Your task to perform on an android device: Open Chrome and go to settings Image 0: 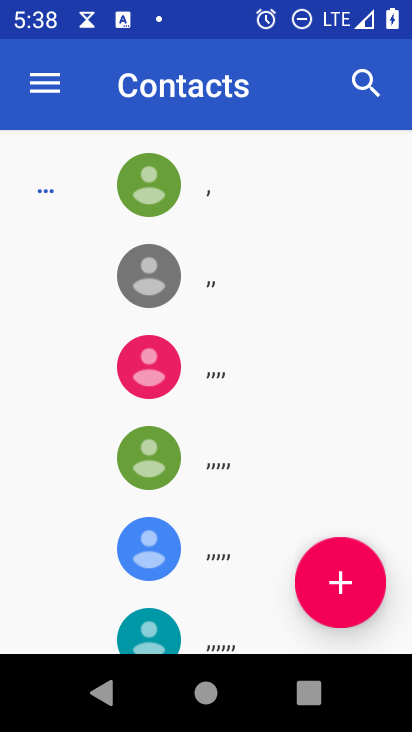
Step 0: press home button
Your task to perform on an android device: Open Chrome and go to settings Image 1: 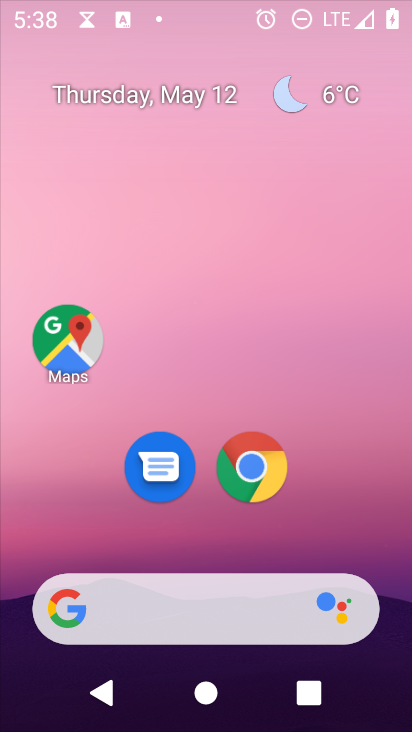
Step 1: drag from (337, 621) to (343, 0)
Your task to perform on an android device: Open Chrome and go to settings Image 2: 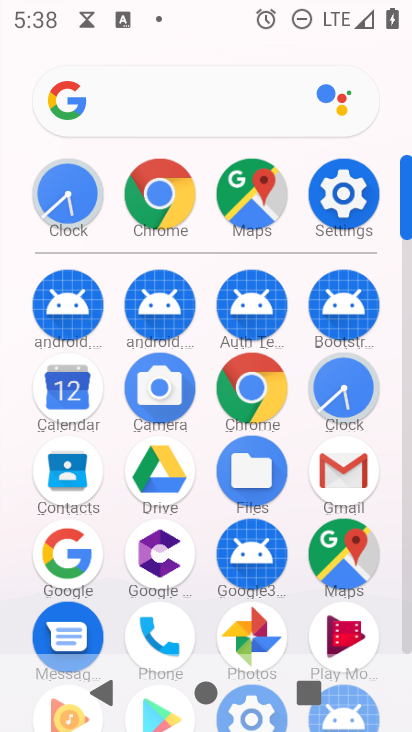
Step 2: click (255, 393)
Your task to perform on an android device: Open Chrome and go to settings Image 3: 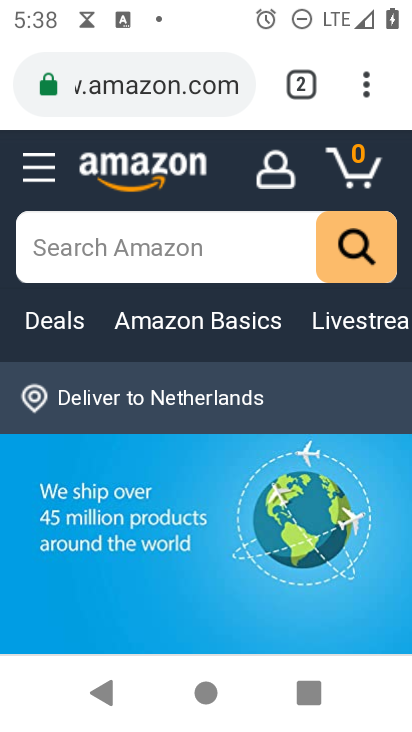
Step 3: task complete